Your task to perform on an android device: Go to Google maps Image 0: 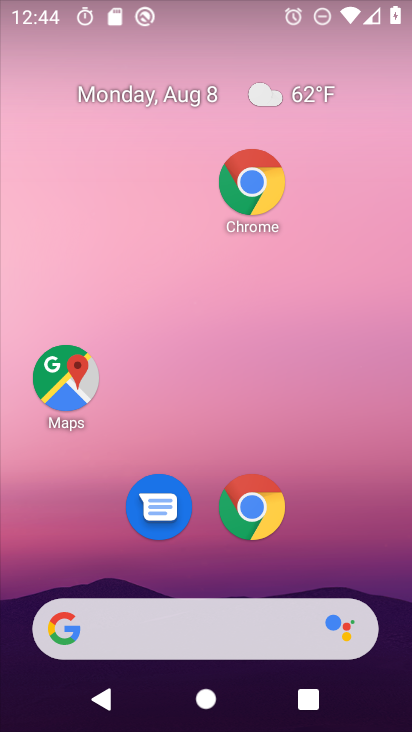
Step 0: drag from (330, 503) to (334, 31)
Your task to perform on an android device: Go to Google maps Image 1: 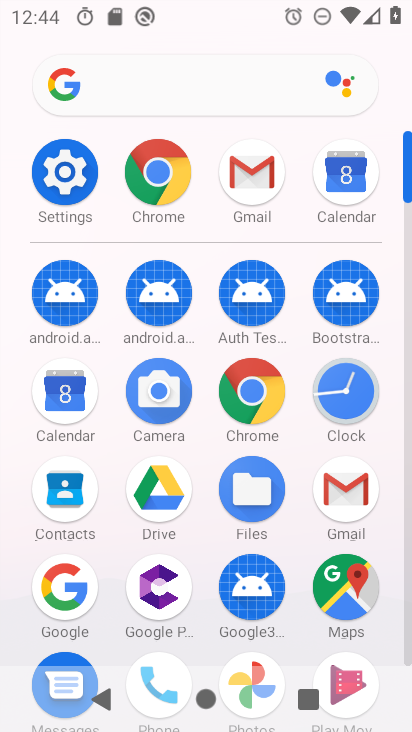
Step 1: click (345, 590)
Your task to perform on an android device: Go to Google maps Image 2: 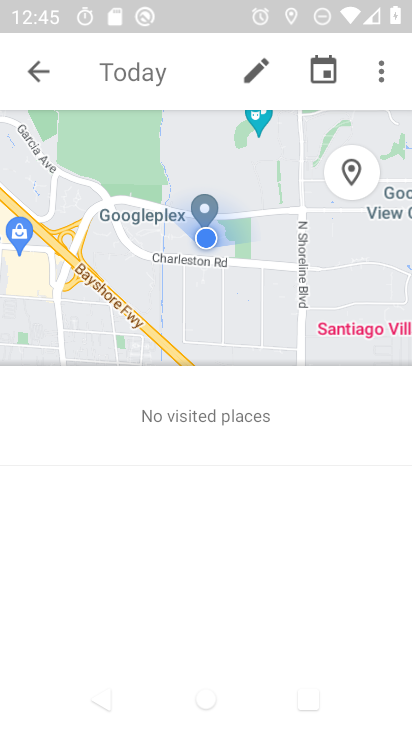
Step 2: task complete